Your task to perform on an android device: What's the weather going to be this weekend? Image 0: 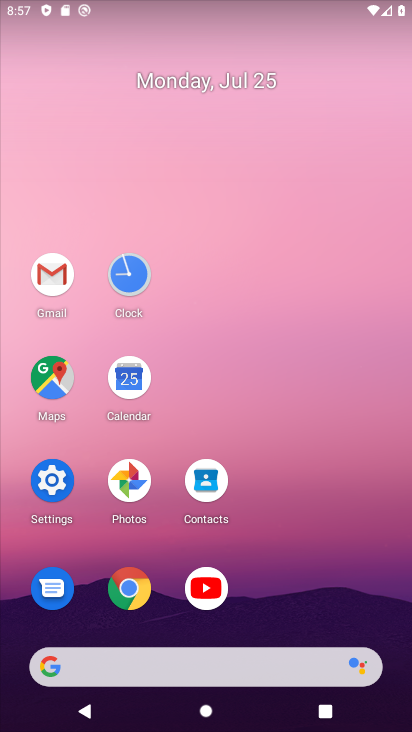
Step 0: click (124, 674)
Your task to perform on an android device: What's the weather going to be this weekend? Image 1: 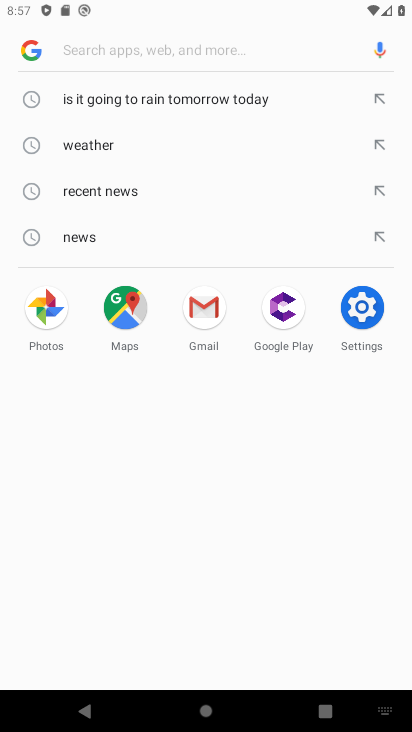
Step 1: click (96, 143)
Your task to perform on an android device: What's the weather going to be this weekend? Image 2: 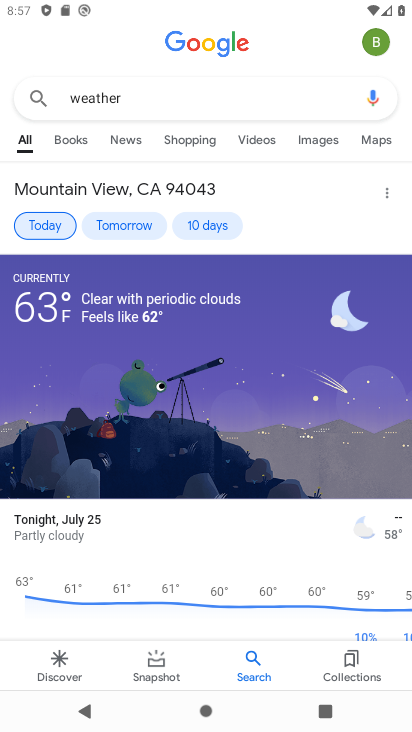
Step 2: click (192, 220)
Your task to perform on an android device: What's the weather going to be this weekend? Image 3: 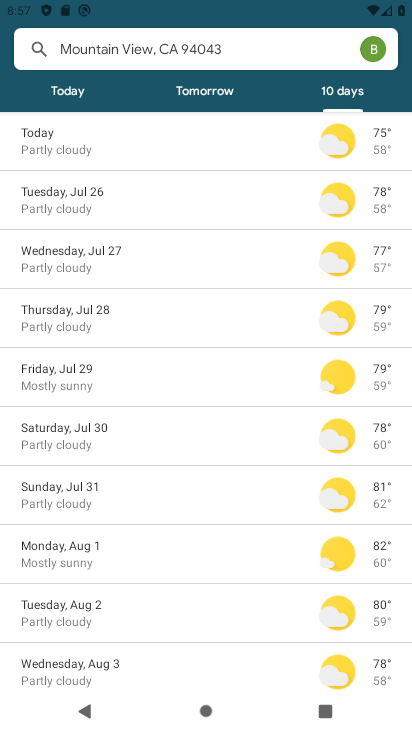
Step 3: task complete